Your task to perform on an android device: Open network settings Image 0: 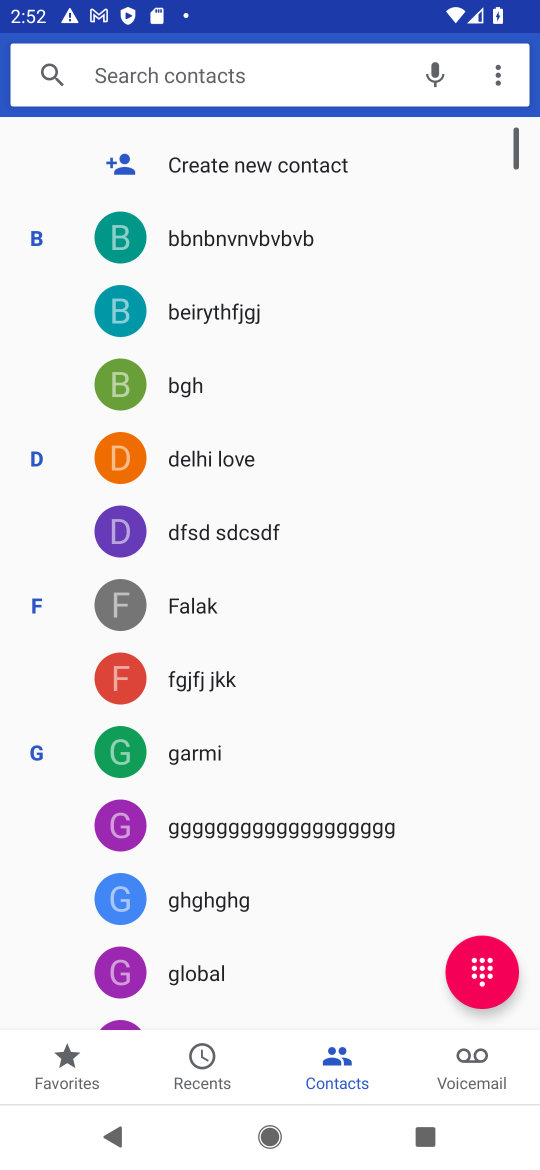
Step 0: press home button
Your task to perform on an android device: Open network settings Image 1: 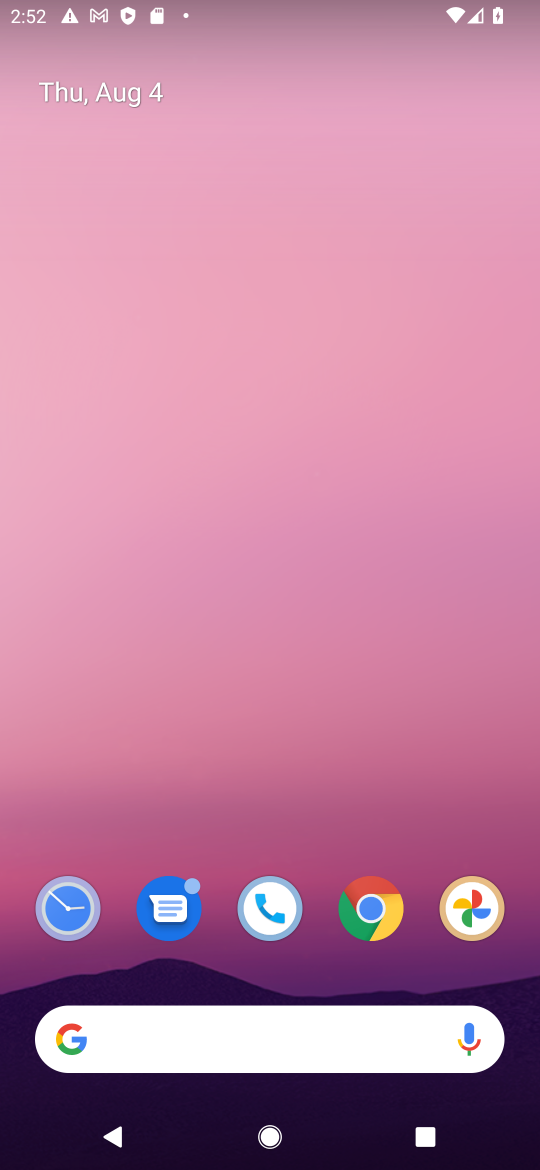
Step 1: drag from (266, 1052) to (294, 199)
Your task to perform on an android device: Open network settings Image 2: 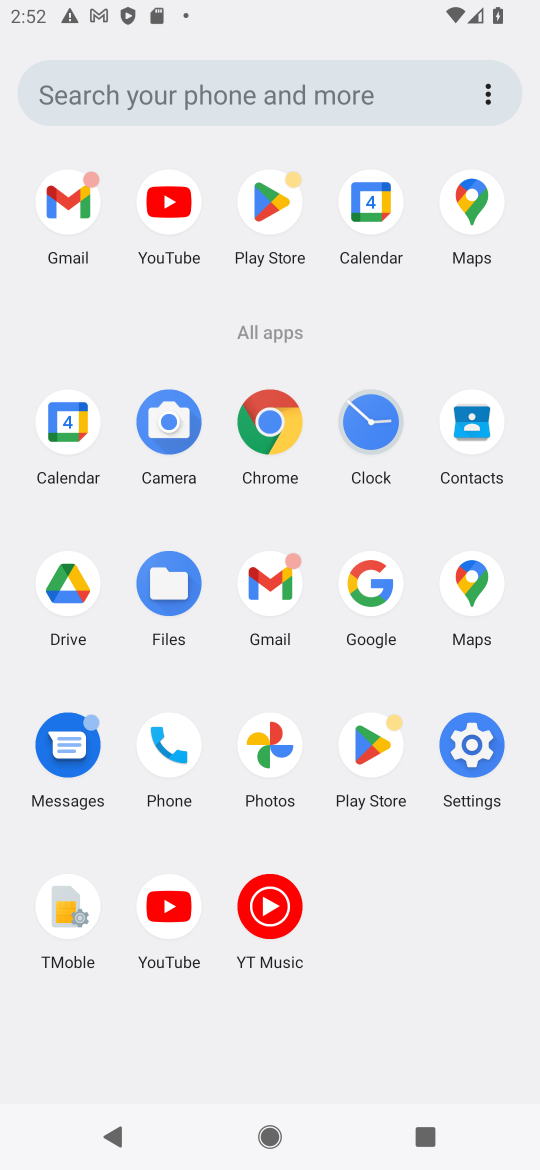
Step 2: click (473, 759)
Your task to perform on an android device: Open network settings Image 3: 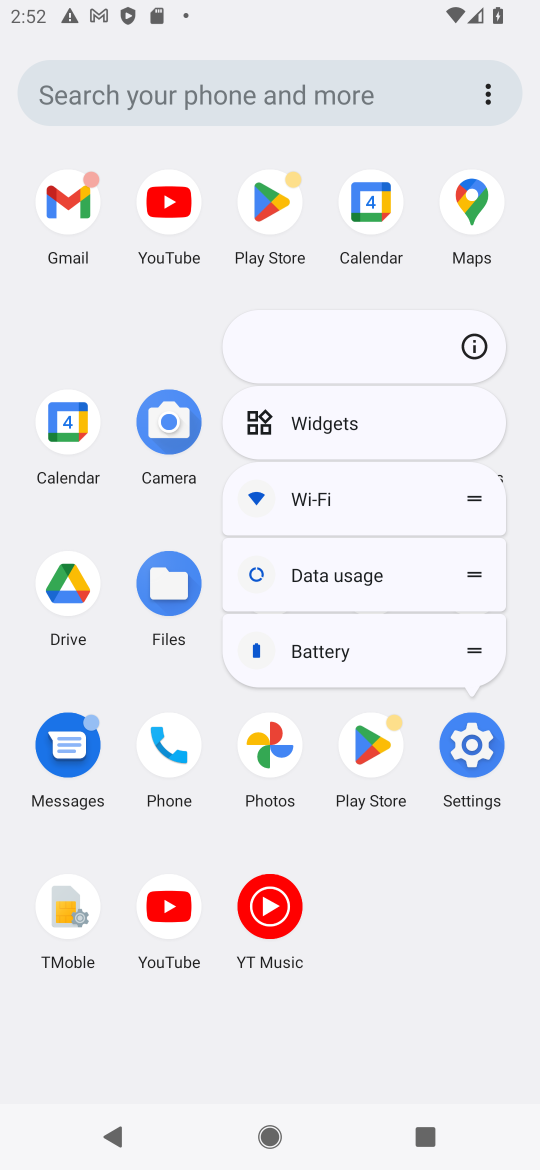
Step 3: click (497, 746)
Your task to perform on an android device: Open network settings Image 4: 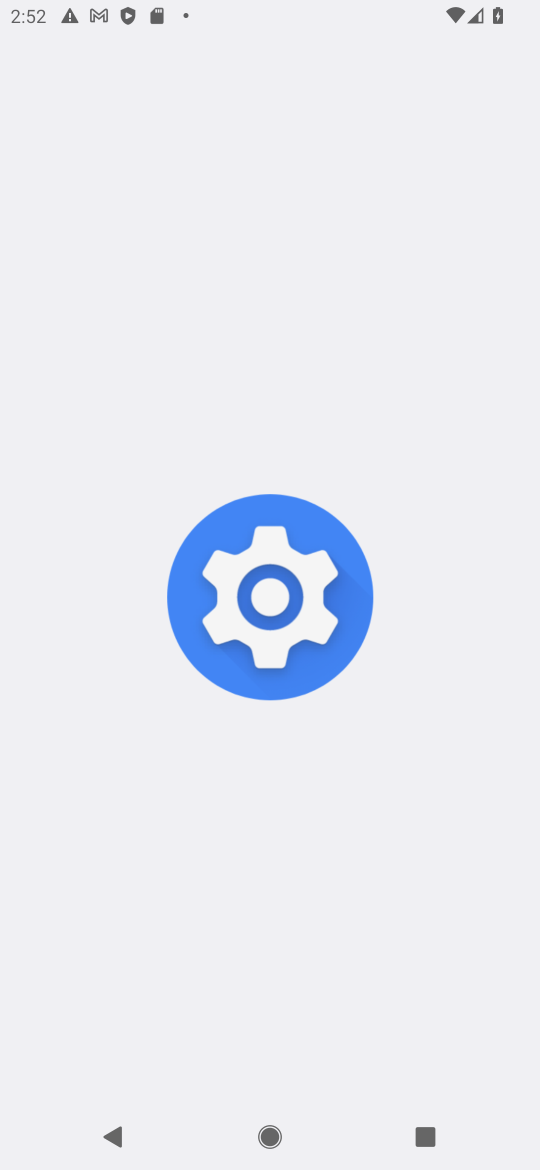
Step 4: click (480, 754)
Your task to perform on an android device: Open network settings Image 5: 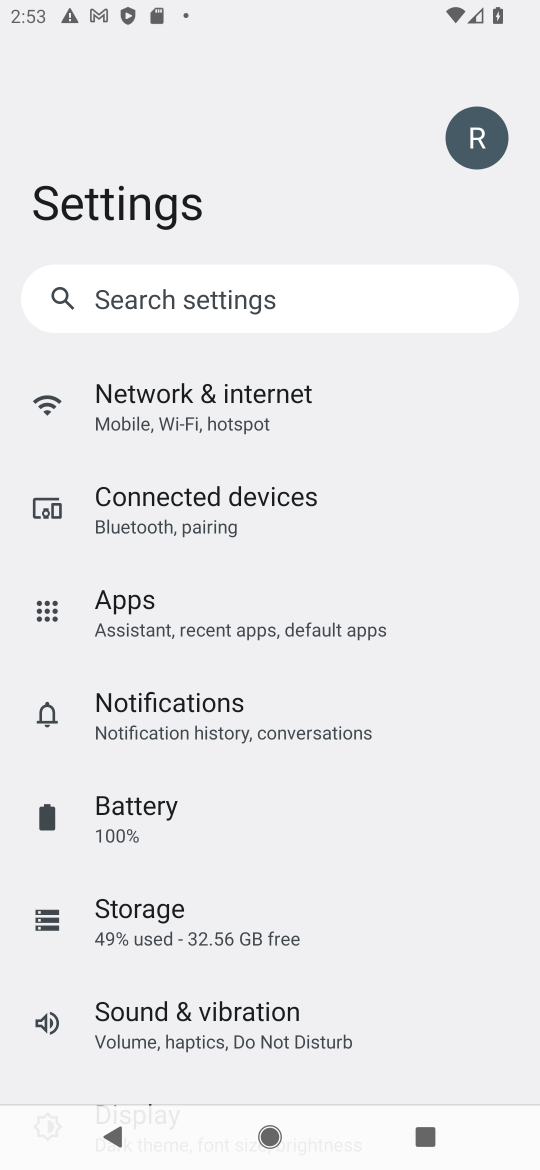
Step 5: click (214, 401)
Your task to perform on an android device: Open network settings Image 6: 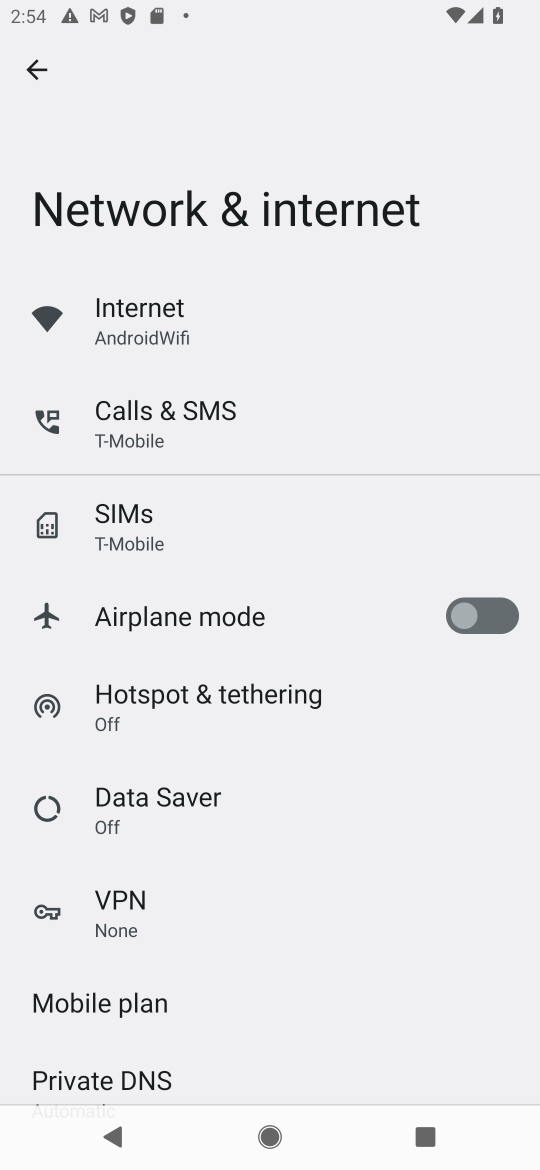
Step 6: click (122, 324)
Your task to perform on an android device: Open network settings Image 7: 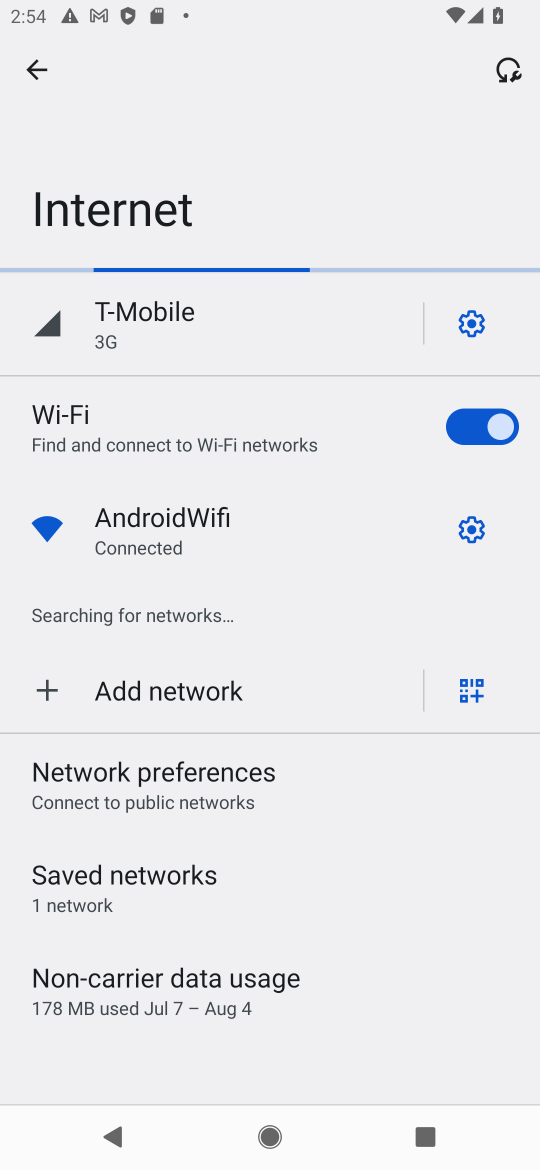
Step 7: task complete